Your task to perform on an android device: Open notification settings Image 0: 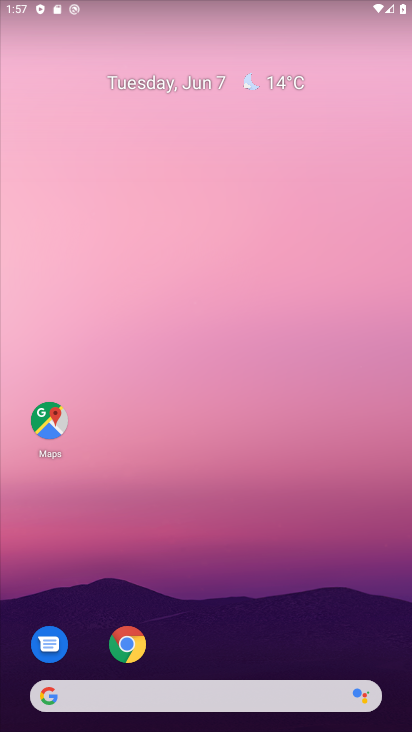
Step 0: drag from (307, 563) to (324, 199)
Your task to perform on an android device: Open notification settings Image 1: 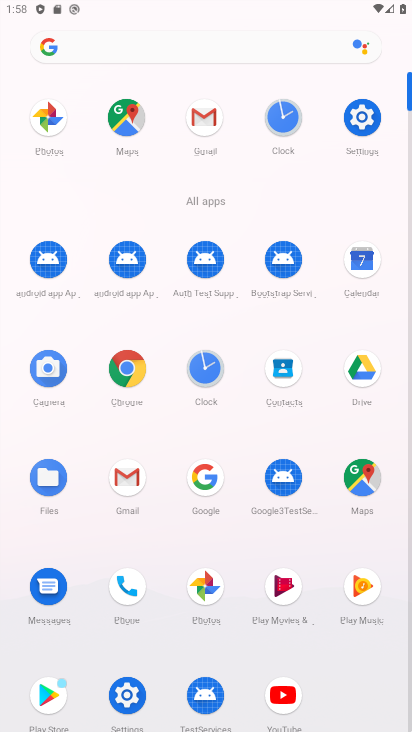
Step 1: click (358, 125)
Your task to perform on an android device: Open notification settings Image 2: 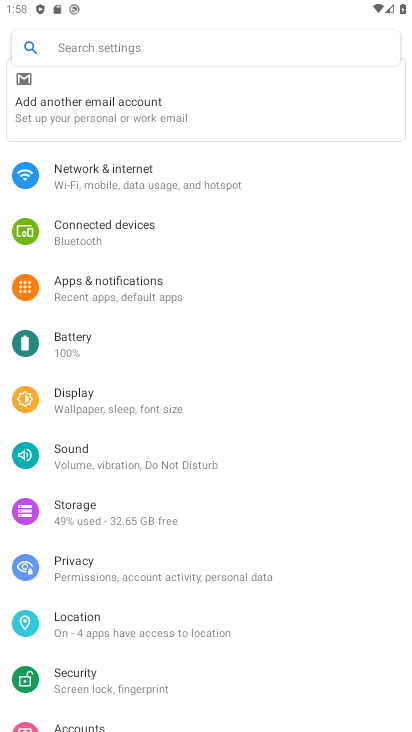
Step 2: drag from (367, 428) to (351, 325)
Your task to perform on an android device: Open notification settings Image 3: 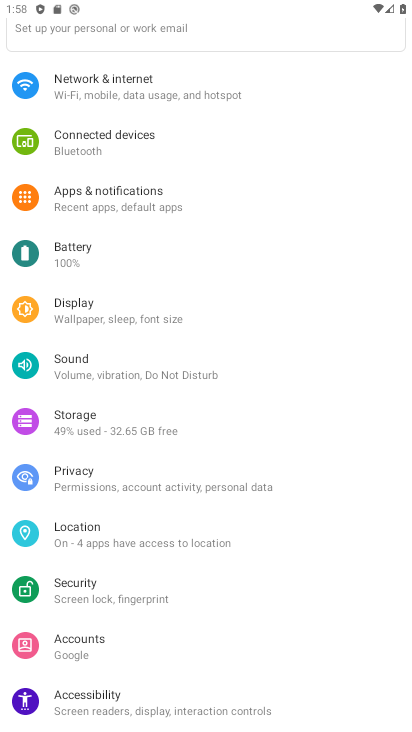
Step 3: drag from (339, 477) to (330, 346)
Your task to perform on an android device: Open notification settings Image 4: 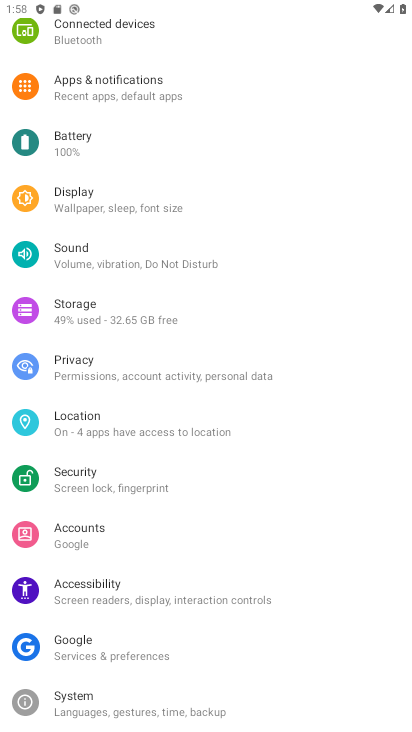
Step 4: drag from (337, 514) to (328, 270)
Your task to perform on an android device: Open notification settings Image 5: 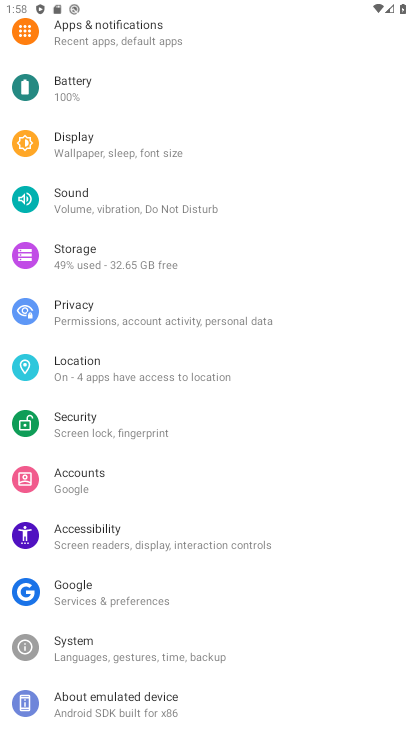
Step 5: drag from (360, 227) to (352, 367)
Your task to perform on an android device: Open notification settings Image 6: 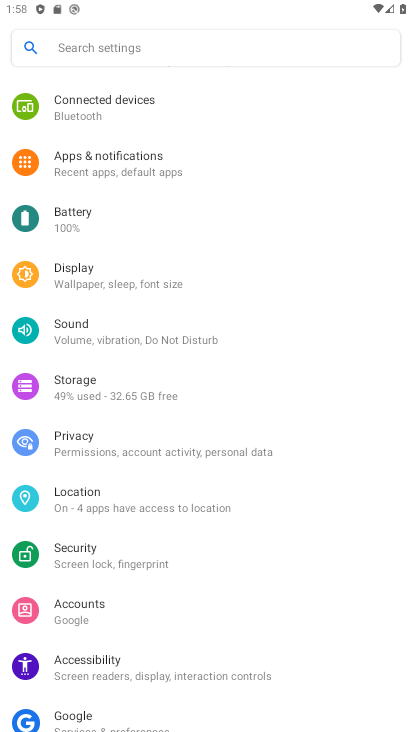
Step 6: drag from (341, 237) to (350, 389)
Your task to perform on an android device: Open notification settings Image 7: 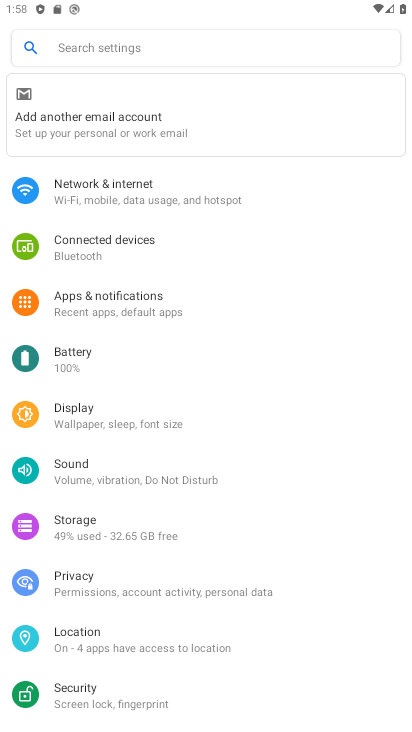
Step 7: drag from (355, 223) to (366, 426)
Your task to perform on an android device: Open notification settings Image 8: 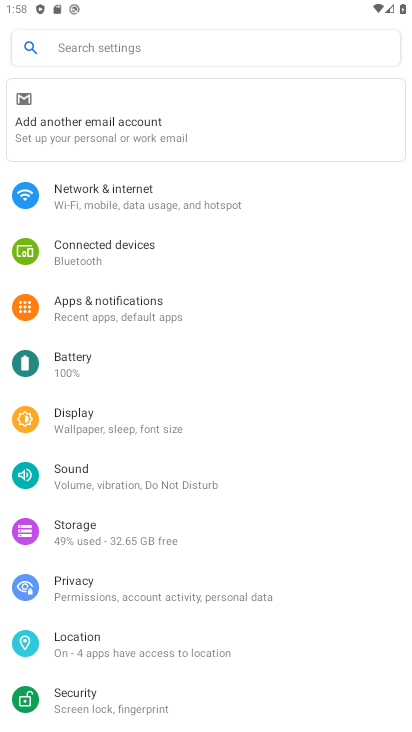
Step 8: click (191, 305)
Your task to perform on an android device: Open notification settings Image 9: 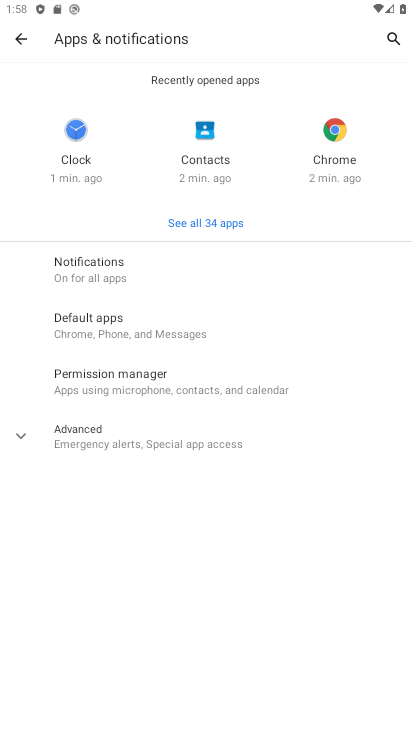
Step 9: click (169, 270)
Your task to perform on an android device: Open notification settings Image 10: 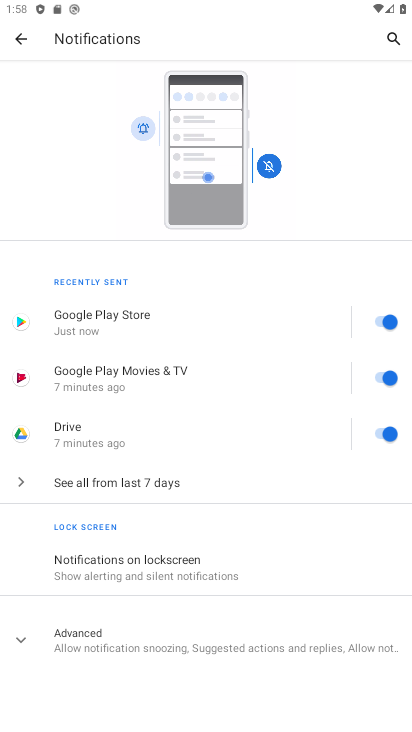
Step 10: task complete